Your task to perform on an android device: Set the phone to "Do not disturb". Image 0: 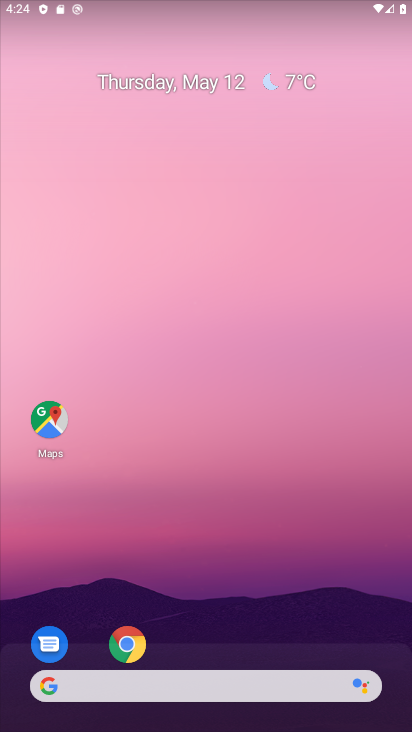
Step 0: drag from (202, 550) to (284, 353)
Your task to perform on an android device: Set the phone to "Do not disturb". Image 1: 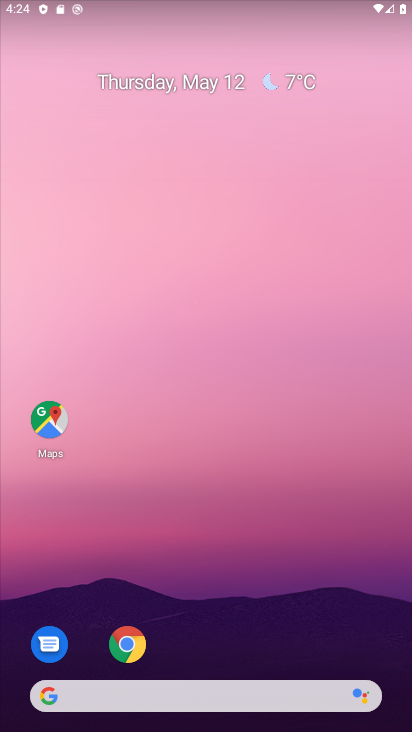
Step 1: drag from (253, 523) to (298, 95)
Your task to perform on an android device: Set the phone to "Do not disturb". Image 2: 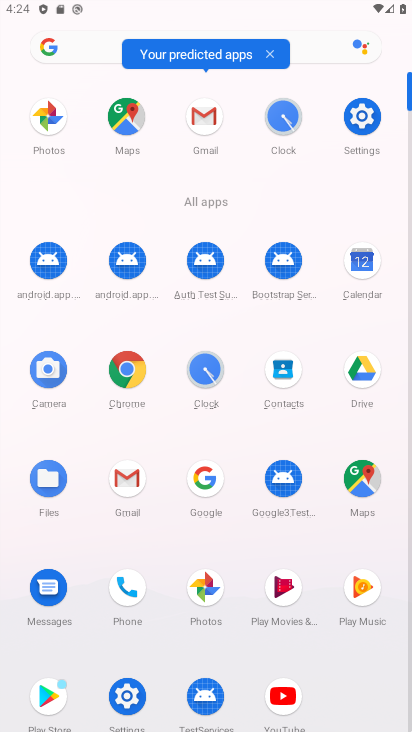
Step 2: click (363, 131)
Your task to perform on an android device: Set the phone to "Do not disturb". Image 3: 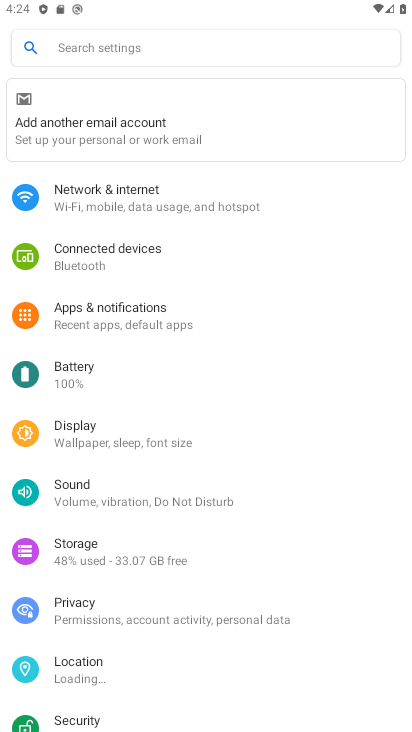
Step 3: click (111, 504)
Your task to perform on an android device: Set the phone to "Do not disturb". Image 4: 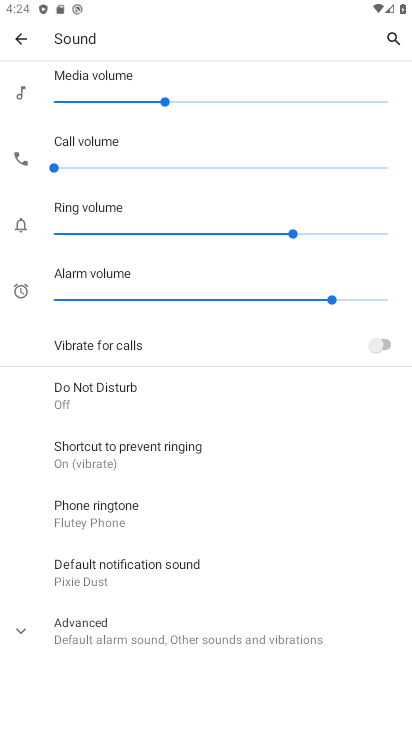
Step 4: click (108, 386)
Your task to perform on an android device: Set the phone to "Do not disturb". Image 5: 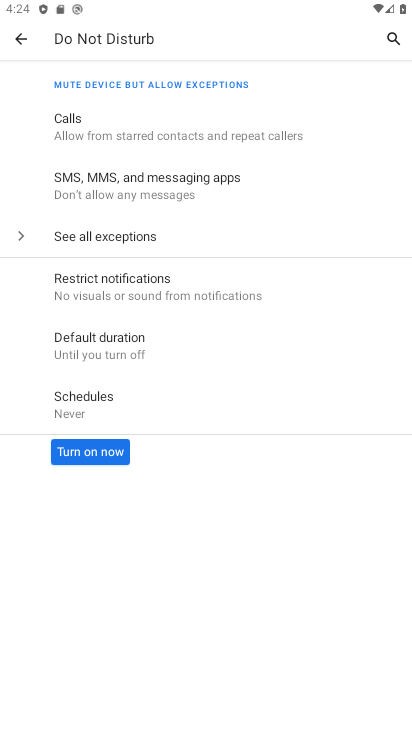
Step 5: click (98, 449)
Your task to perform on an android device: Set the phone to "Do not disturb". Image 6: 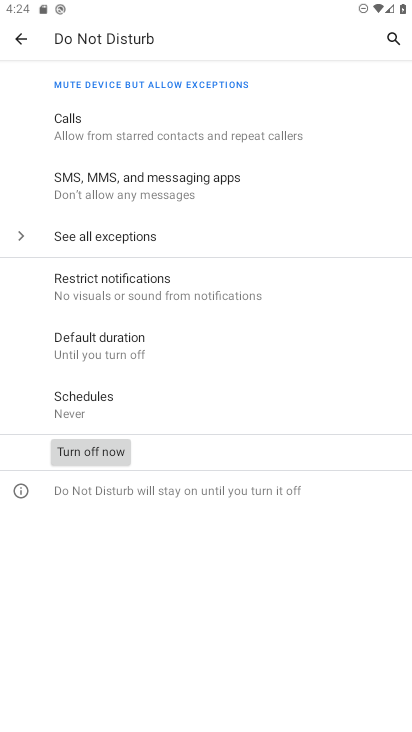
Step 6: task complete